Your task to perform on an android device: Go to battery settings Image 0: 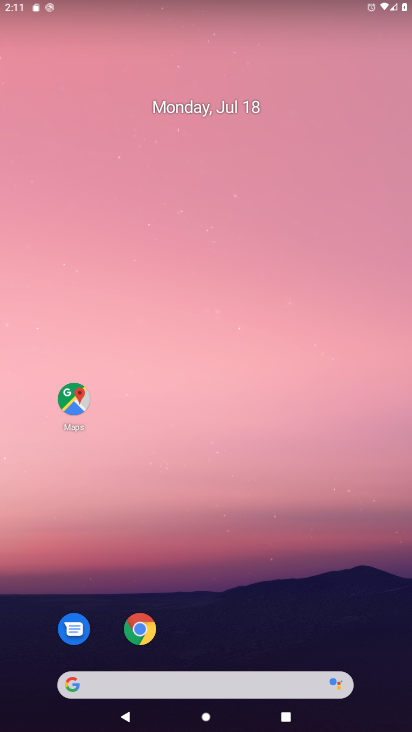
Step 0: drag from (216, 355) to (263, 59)
Your task to perform on an android device: Go to battery settings Image 1: 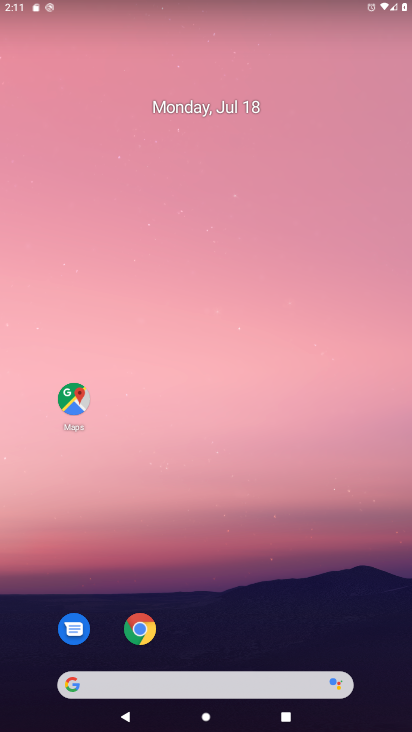
Step 1: drag from (208, 464) to (214, 27)
Your task to perform on an android device: Go to battery settings Image 2: 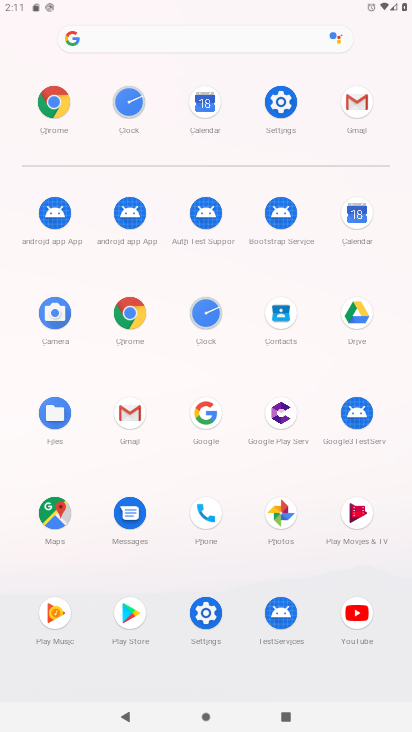
Step 2: click (273, 102)
Your task to perform on an android device: Go to battery settings Image 3: 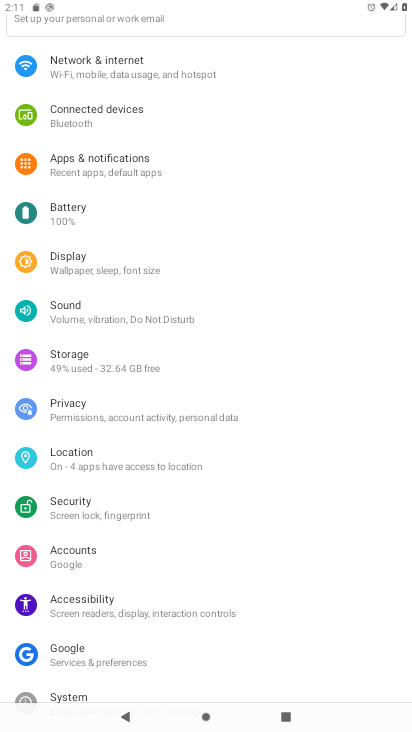
Step 3: click (61, 216)
Your task to perform on an android device: Go to battery settings Image 4: 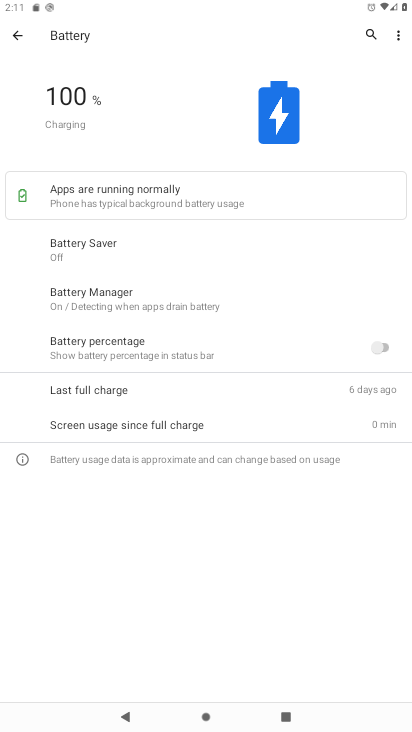
Step 4: task complete